Your task to perform on an android device: find which apps use the phone's location Image 0: 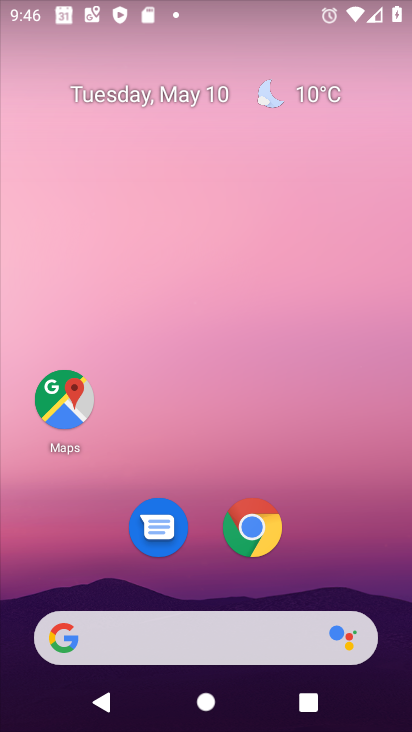
Step 0: drag from (226, 725) to (228, 138)
Your task to perform on an android device: find which apps use the phone's location Image 1: 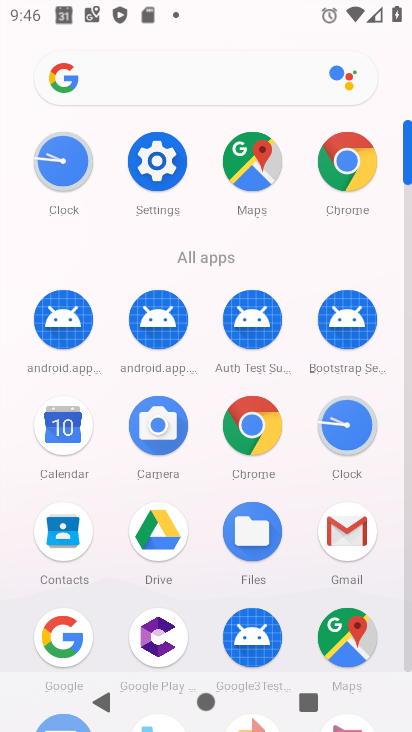
Step 1: click (169, 160)
Your task to perform on an android device: find which apps use the phone's location Image 2: 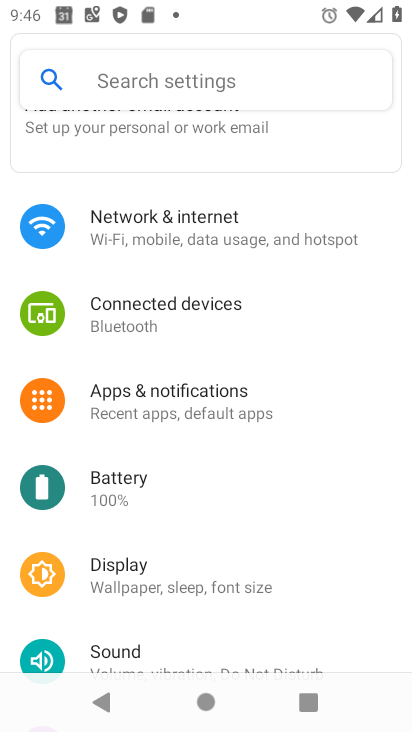
Step 2: drag from (205, 642) to (199, 230)
Your task to perform on an android device: find which apps use the phone's location Image 3: 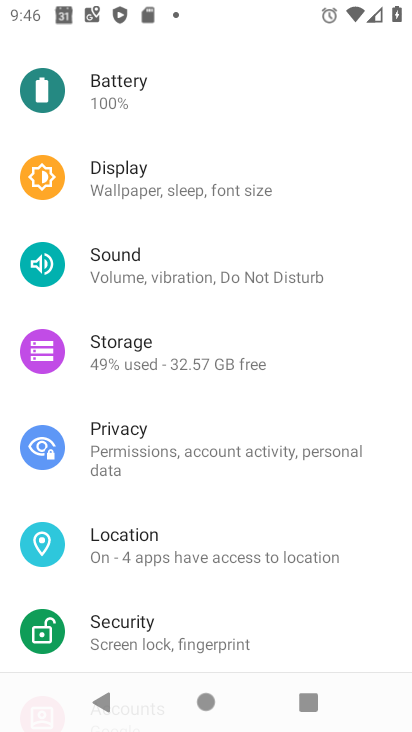
Step 3: click (146, 550)
Your task to perform on an android device: find which apps use the phone's location Image 4: 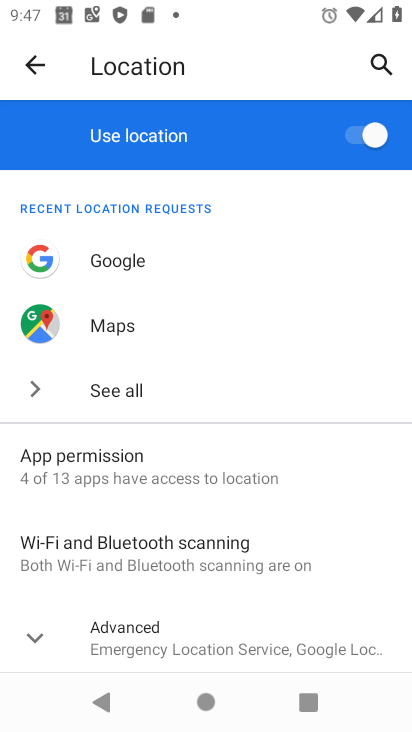
Step 4: click (103, 460)
Your task to perform on an android device: find which apps use the phone's location Image 5: 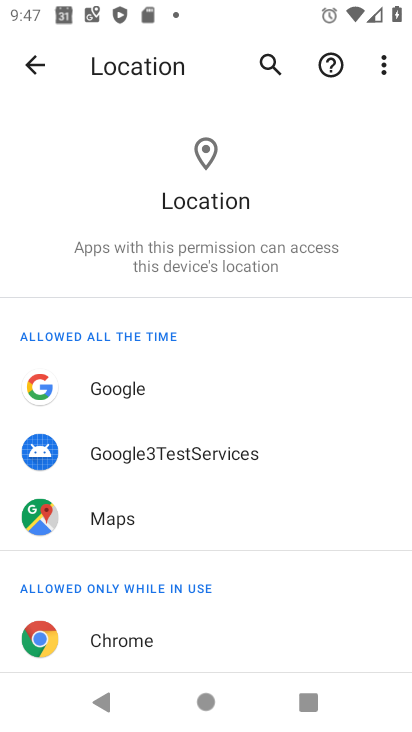
Step 5: task complete